Your task to perform on an android device: add a contact in the contacts app Image 0: 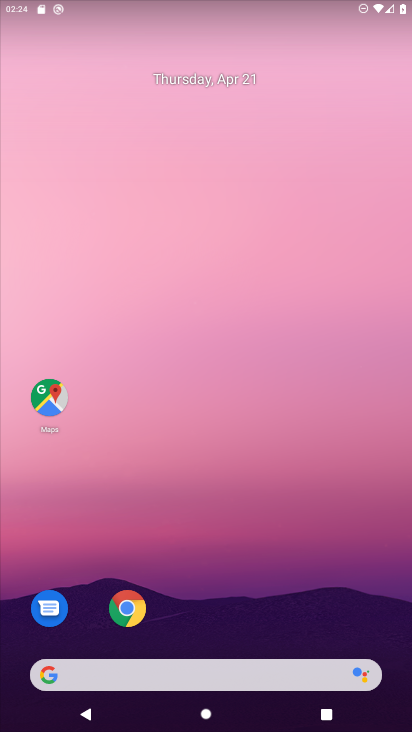
Step 0: drag from (238, 366) to (247, 163)
Your task to perform on an android device: add a contact in the contacts app Image 1: 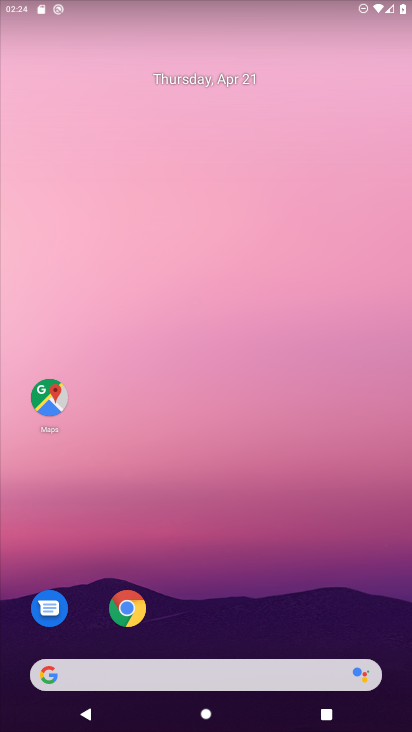
Step 1: drag from (226, 375) to (224, 158)
Your task to perform on an android device: add a contact in the contacts app Image 2: 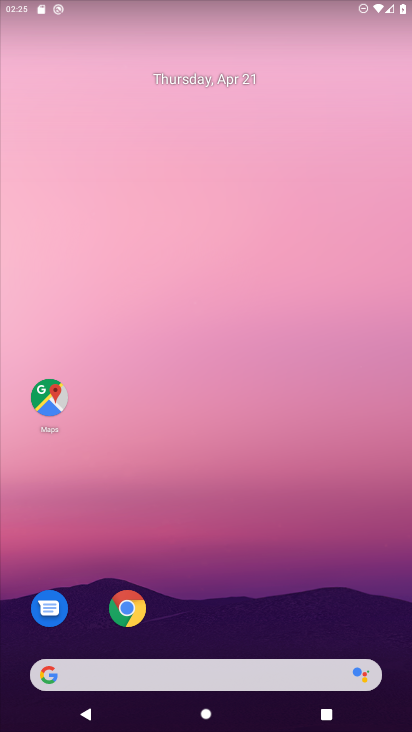
Step 2: drag from (281, 584) to (276, 127)
Your task to perform on an android device: add a contact in the contacts app Image 3: 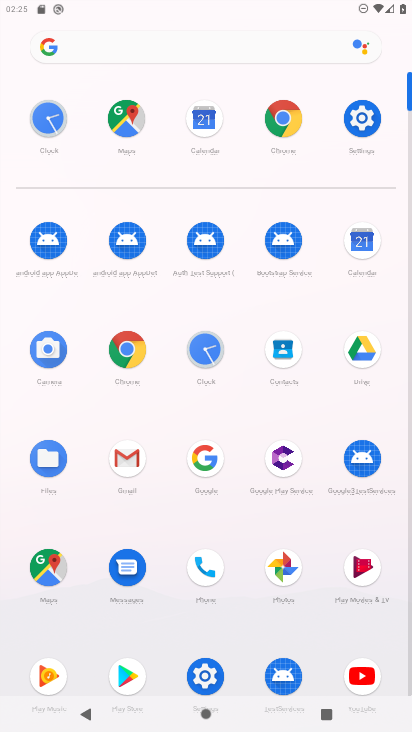
Step 3: click (205, 563)
Your task to perform on an android device: add a contact in the contacts app Image 4: 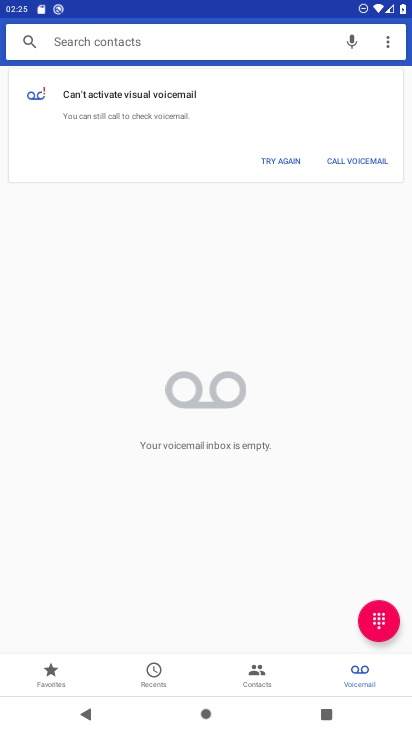
Step 4: click (38, 666)
Your task to perform on an android device: add a contact in the contacts app Image 5: 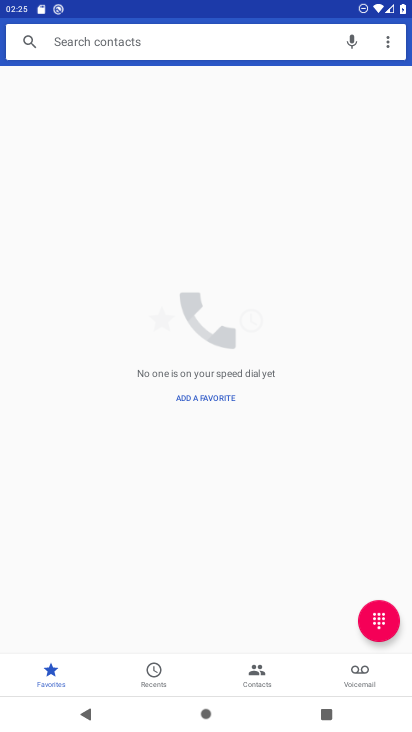
Step 5: click (193, 412)
Your task to perform on an android device: add a contact in the contacts app Image 6: 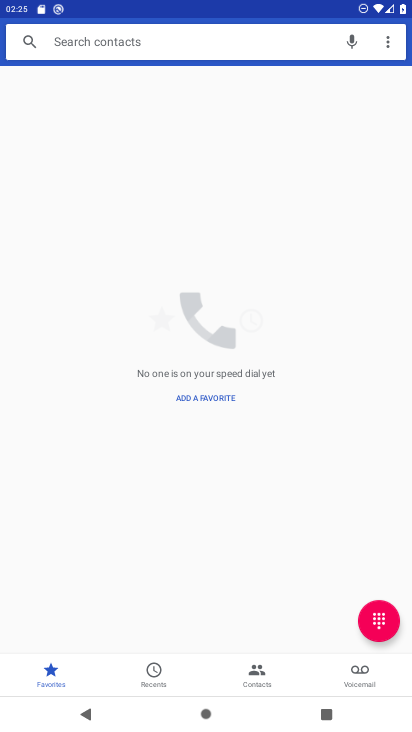
Step 6: click (200, 397)
Your task to perform on an android device: add a contact in the contacts app Image 7: 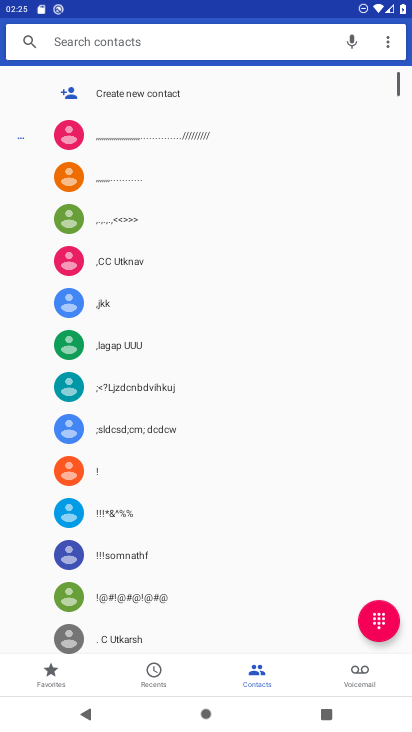
Step 7: click (141, 90)
Your task to perform on an android device: add a contact in the contacts app Image 8: 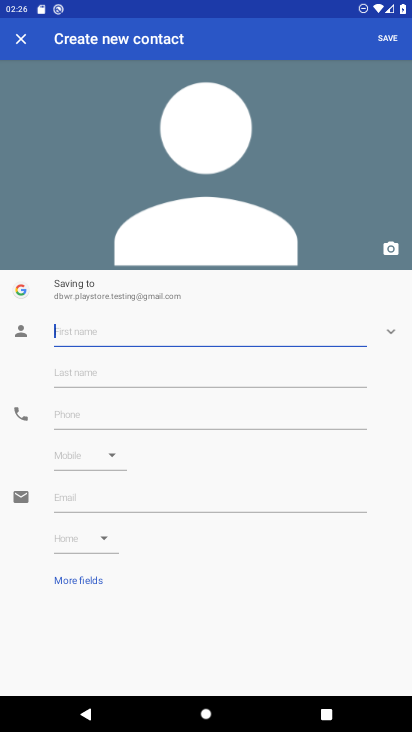
Step 8: click (176, 333)
Your task to perform on an android device: add a contact in the contacts app Image 9: 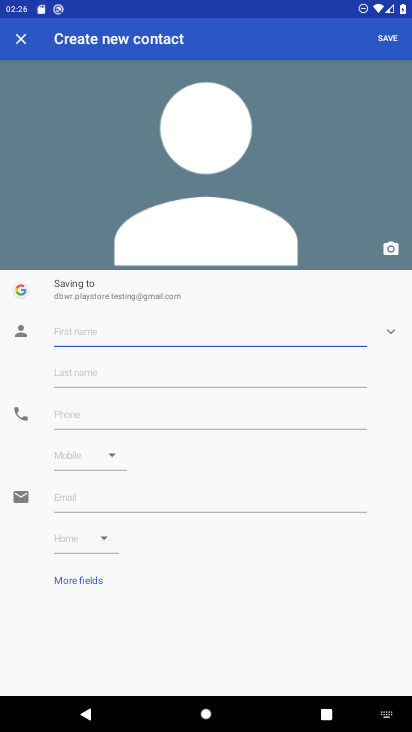
Step 9: type "tttttttttttttt"
Your task to perform on an android device: add a contact in the contacts app Image 10: 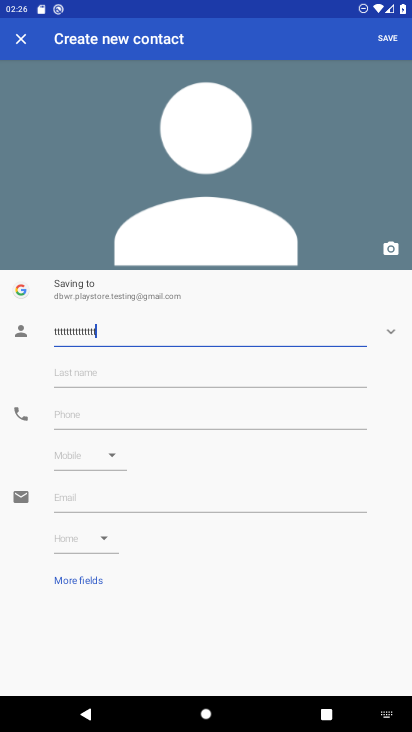
Step 10: click (117, 405)
Your task to perform on an android device: add a contact in the contacts app Image 11: 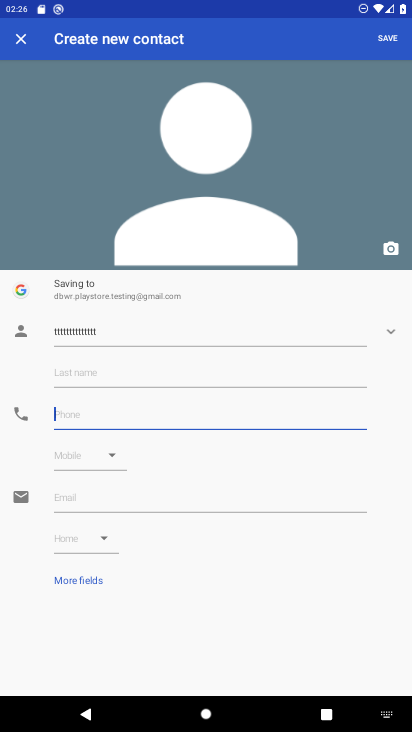
Step 11: type "76767667677667"
Your task to perform on an android device: add a contact in the contacts app Image 12: 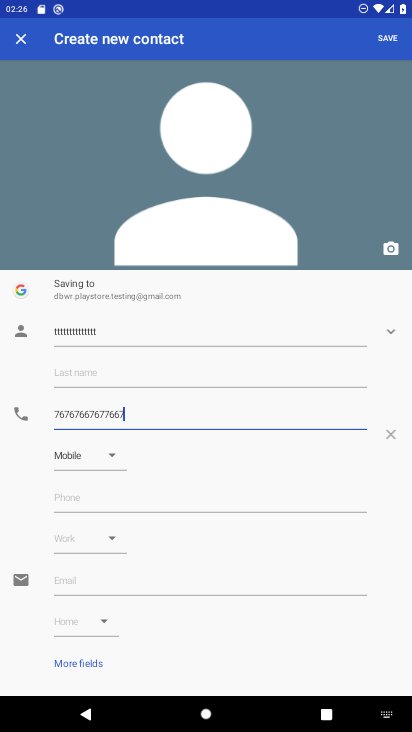
Step 12: click (382, 43)
Your task to perform on an android device: add a contact in the contacts app Image 13: 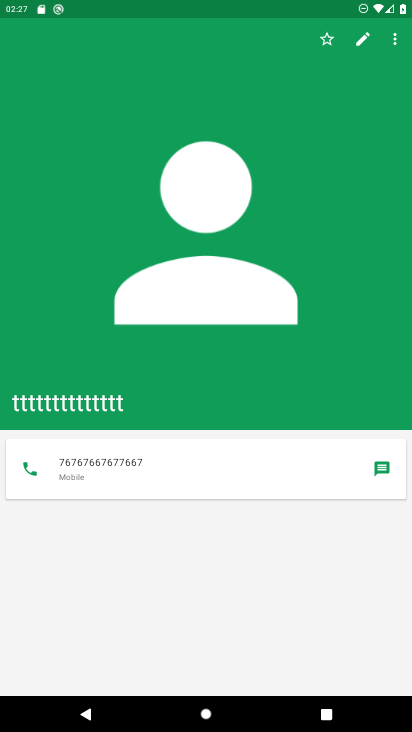
Step 13: task complete